Your task to perform on an android device: Open the web browser Image 0: 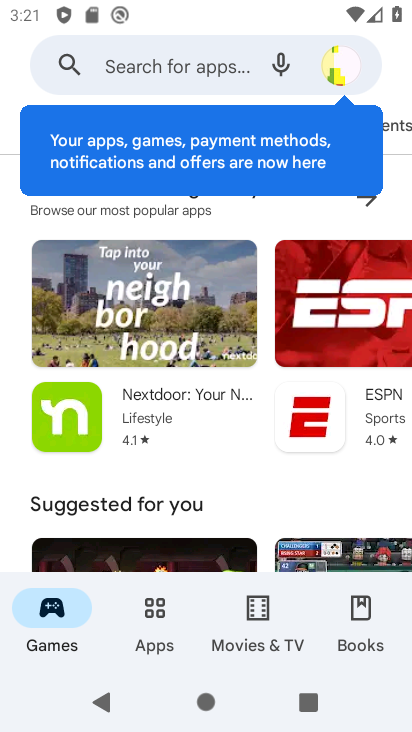
Step 0: press back button
Your task to perform on an android device: Open the web browser Image 1: 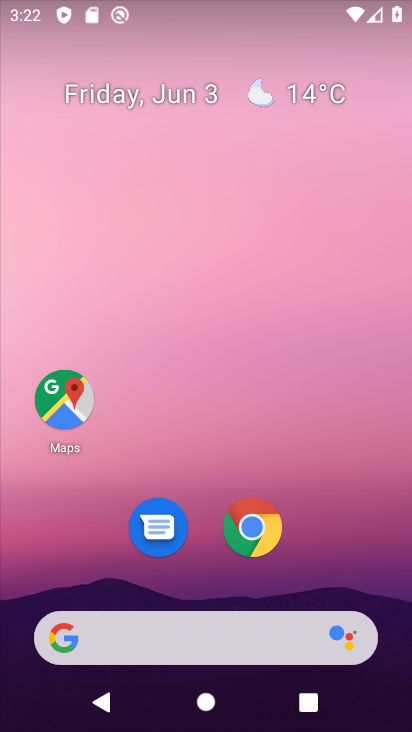
Step 1: click (253, 528)
Your task to perform on an android device: Open the web browser Image 2: 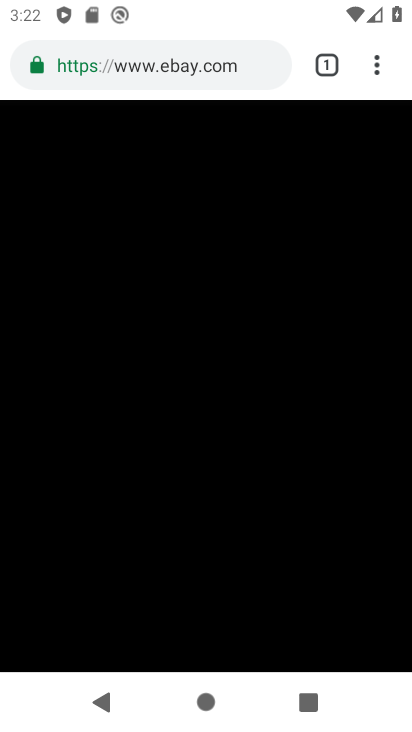
Step 2: task complete